Your task to perform on an android device: change alarm snooze length Image 0: 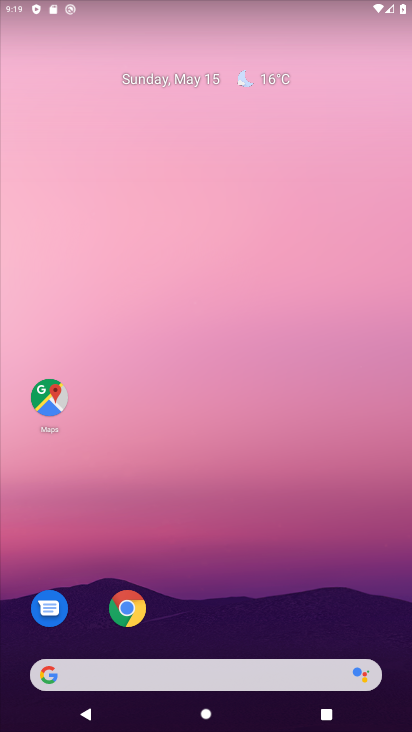
Step 0: drag from (200, 644) to (139, 27)
Your task to perform on an android device: change alarm snooze length Image 1: 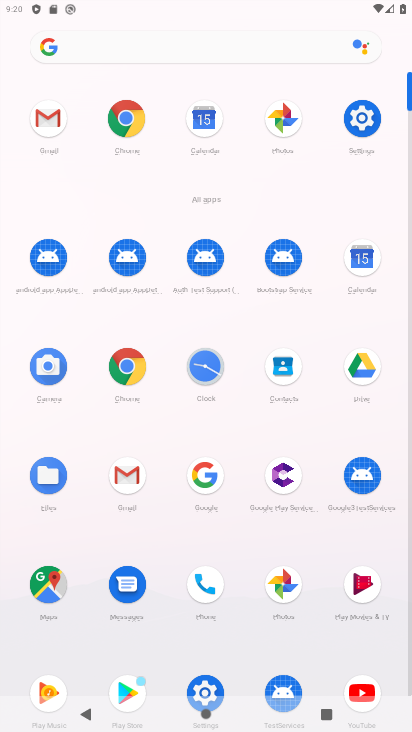
Step 1: click (211, 375)
Your task to perform on an android device: change alarm snooze length Image 2: 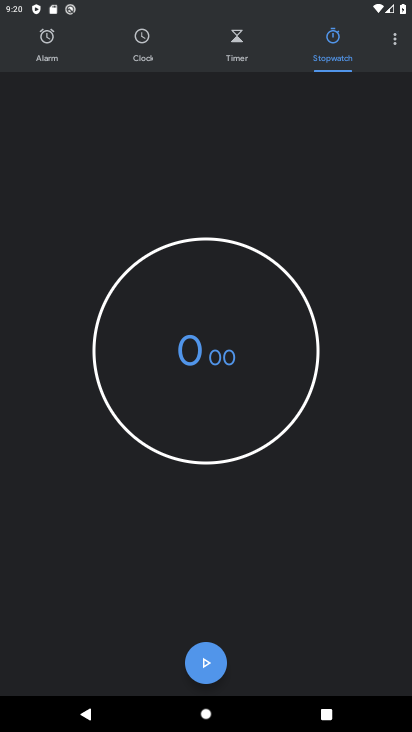
Step 2: click (397, 49)
Your task to perform on an android device: change alarm snooze length Image 3: 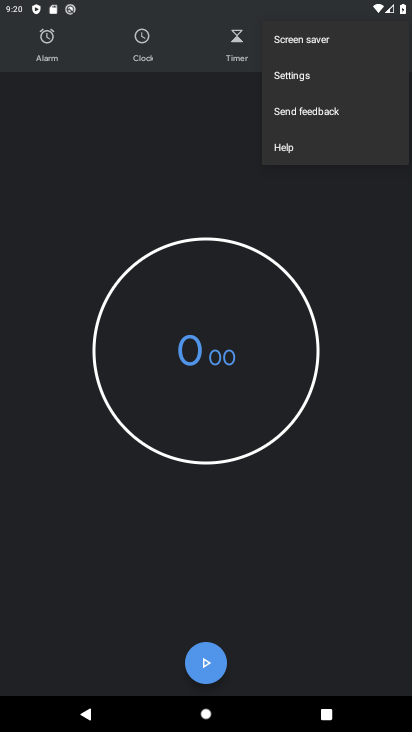
Step 3: click (303, 81)
Your task to perform on an android device: change alarm snooze length Image 4: 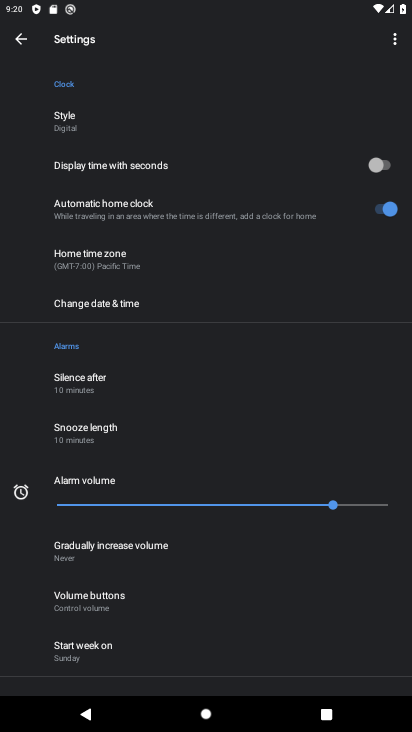
Step 4: click (98, 428)
Your task to perform on an android device: change alarm snooze length Image 5: 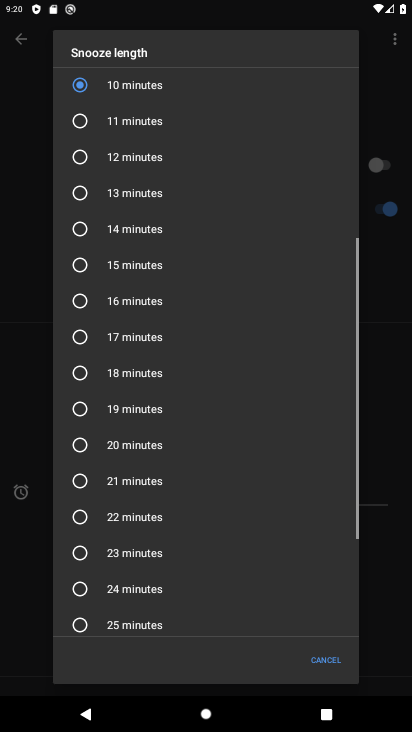
Step 5: click (129, 132)
Your task to perform on an android device: change alarm snooze length Image 6: 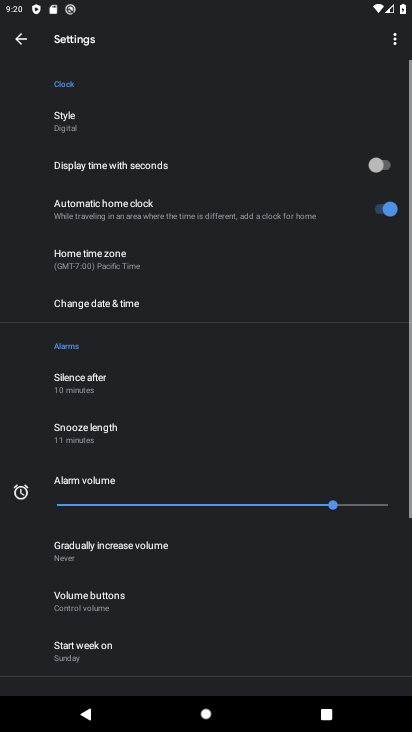
Step 6: task complete